Your task to perform on an android device: turn on data saver in the chrome app Image 0: 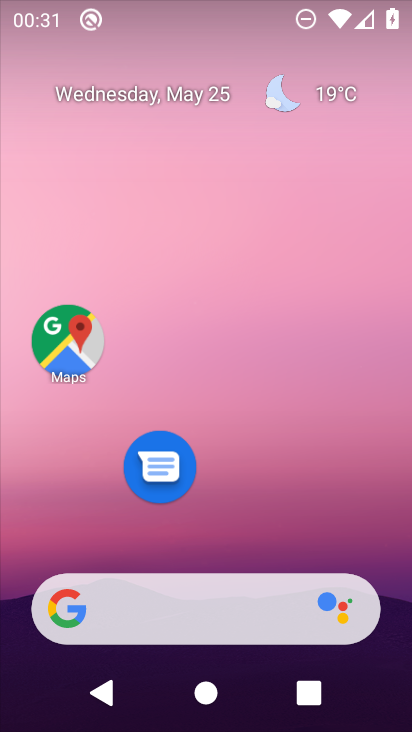
Step 0: drag from (278, 245) to (318, 30)
Your task to perform on an android device: turn on data saver in the chrome app Image 1: 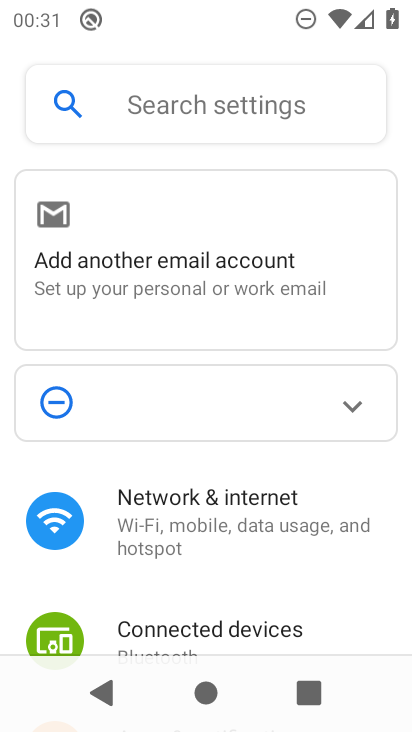
Step 1: drag from (232, 597) to (387, 355)
Your task to perform on an android device: turn on data saver in the chrome app Image 2: 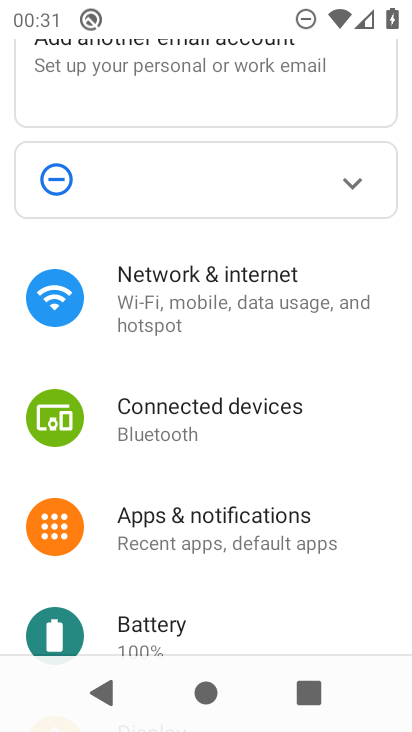
Step 2: press home button
Your task to perform on an android device: turn on data saver in the chrome app Image 3: 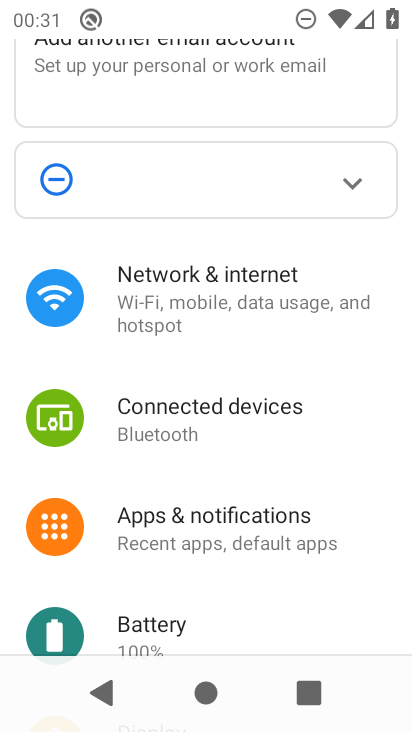
Step 3: drag from (387, 355) to (406, 515)
Your task to perform on an android device: turn on data saver in the chrome app Image 4: 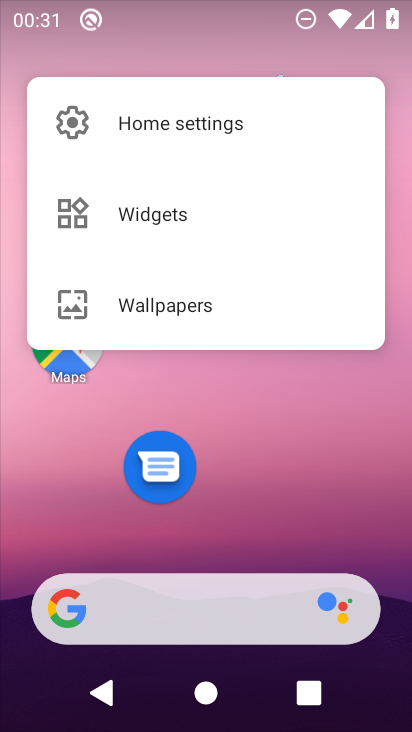
Step 4: click (293, 449)
Your task to perform on an android device: turn on data saver in the chrome app Image 5: 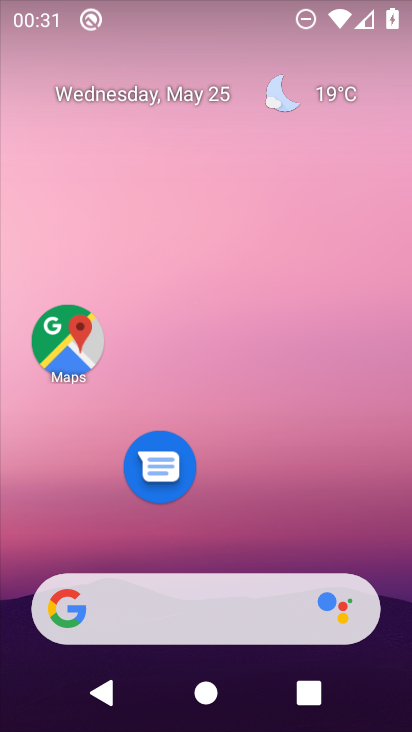
Step 5: drag from (219, 525) to (283, 0)
Your task to perform on an android device: turn on data saver in the chrome app Image 6: 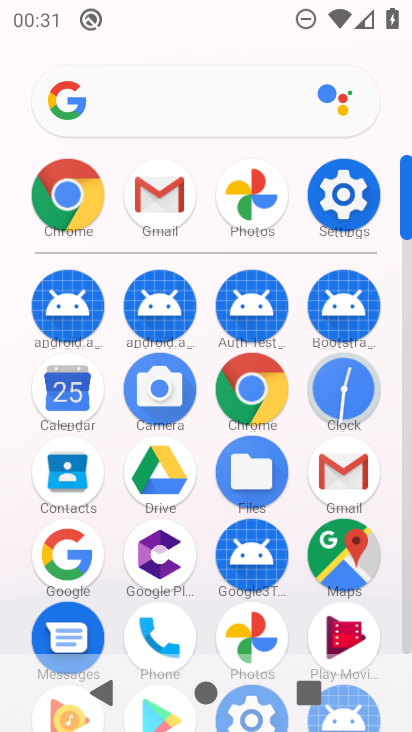
Step 6: click (261, 379)
Your task to perform on an android device: turn on data saver in the chrome app Image 7: 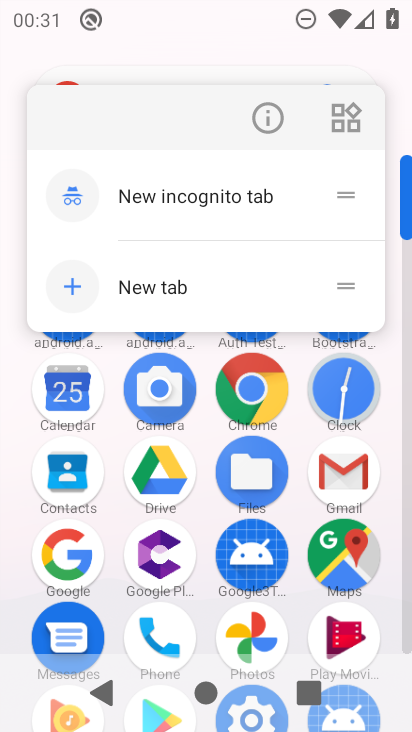
Step 7: click (261, 115)
Your task to perform on an android device: turn on data saver in the chrome app Image 8: 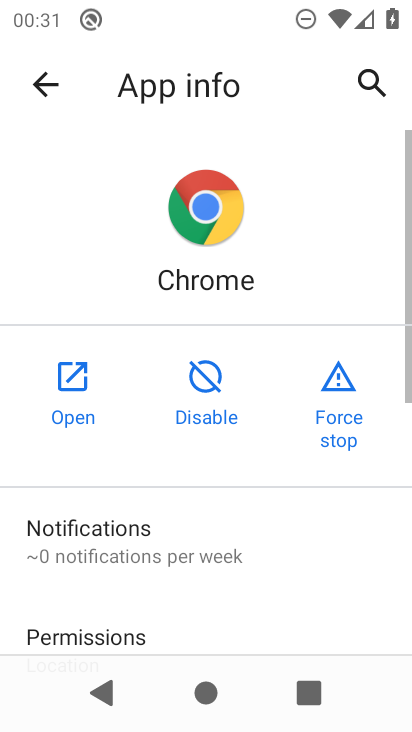
Step 8: click (69, 376)
Your task to perform on an android device: turn on data saver in the chrome app Image 9: 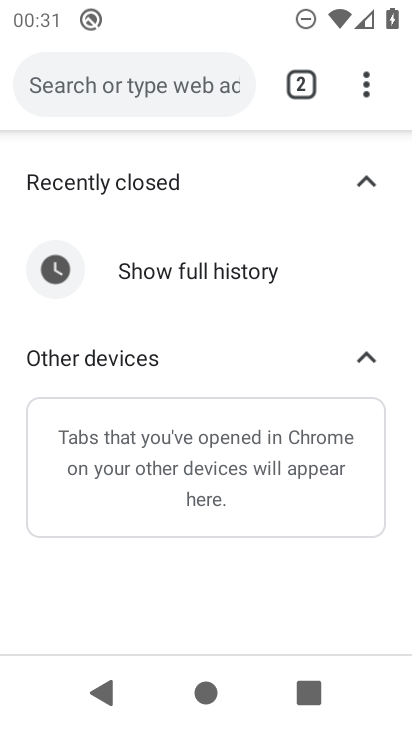
Step 9: click (373, 71)
Your task to perform on an android device: turn on data saver in the chrome app Image 10: 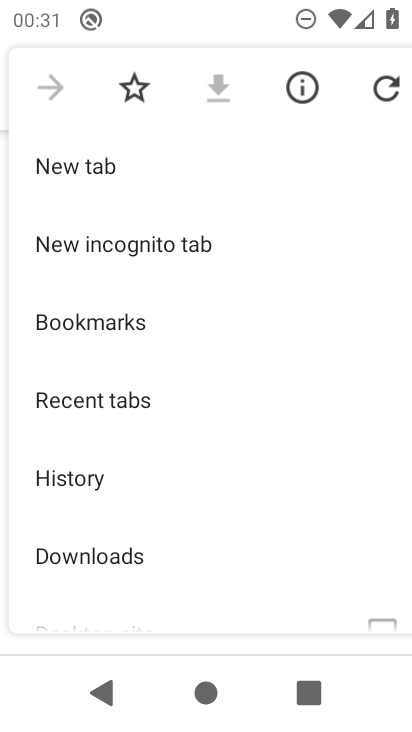
Step 10: drag from (212, 536) to (291, 202)
Your task to perform on an android device: turn on data saver in the chrome app Image 11: 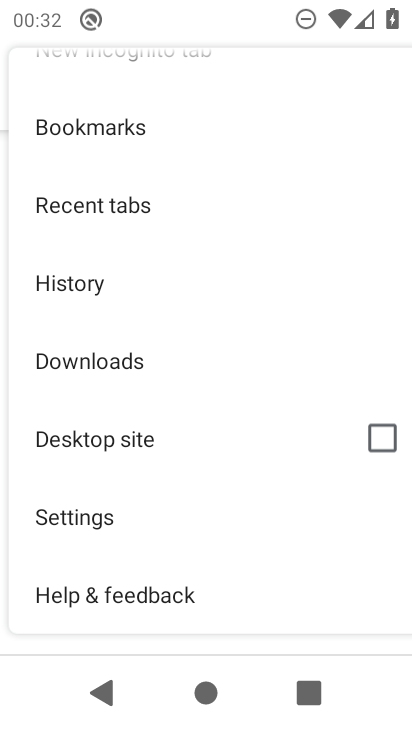
Step 11: click (87, 517)
Your task to perform on an android device: turn on data saver in the chrome app Image 12: 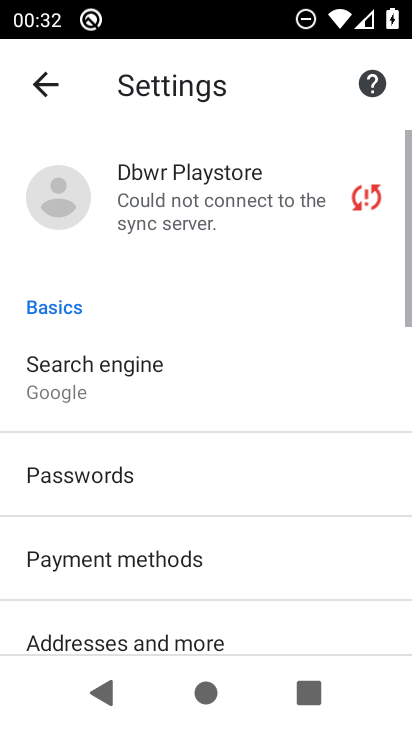
Step 12: drag from (197, 564) to (396, 140)
Your task to perform on an android device: turn on data saver in the chrome app Image 13: 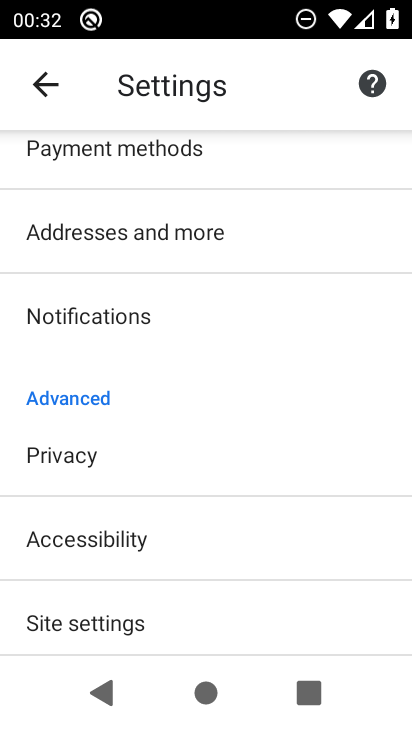
Step 13: drag from (185, 599) to (361, 144)
Your task to perform on an android device: turn on data saver in the chrome app Image 14: 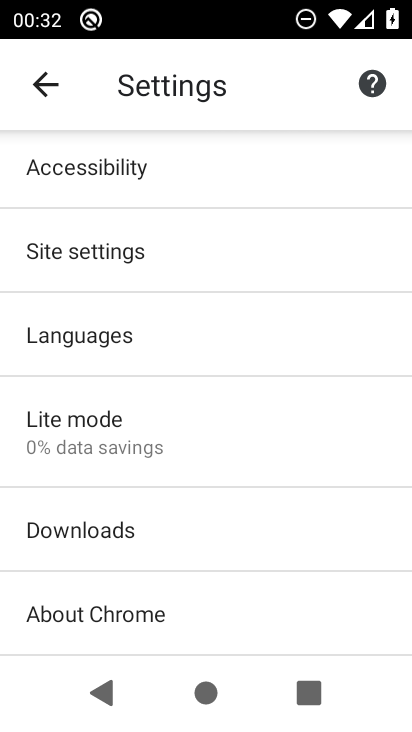
Step 14: click (164, 465)
Your task to perform on an android device: turn on data saver in the chrome app Image 15: 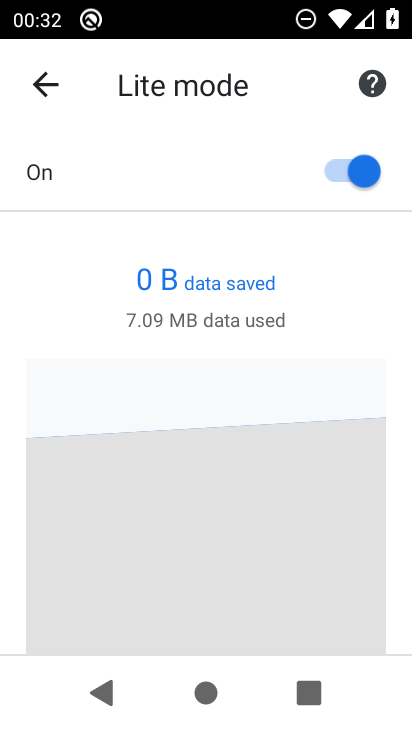
Step 15: task complete